Your task to perform on an android device: turn on bluetooth scan Image 0: 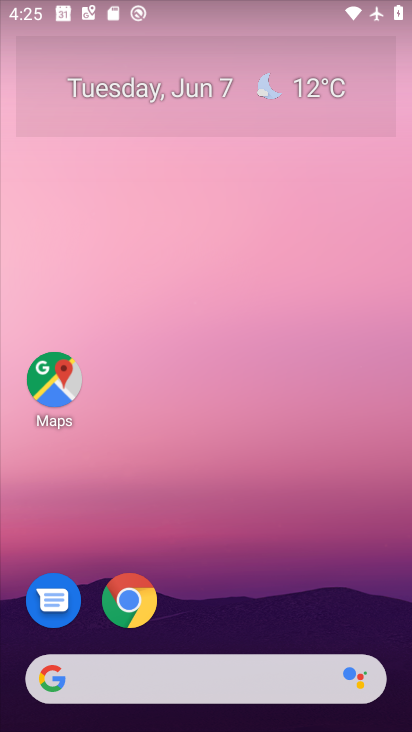
Step 0: drag from (239, 599) to (190, 156)
Your task to perform on an android device: turn on bluetooth scan Image 1: 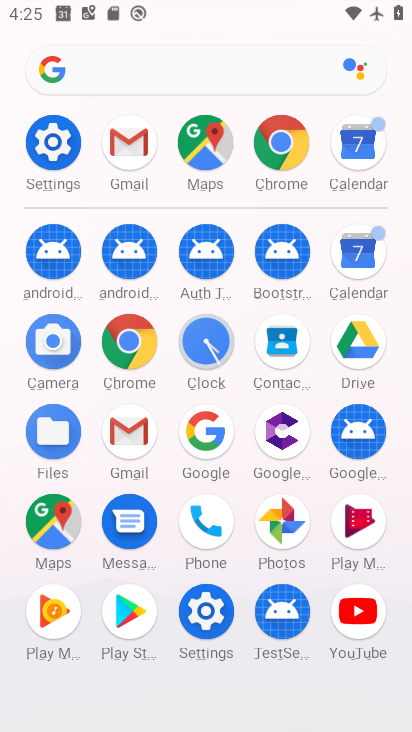
Step 1: click (42, 134)
Your task to perform on an android device: turn on bluetooth scan Image 2: 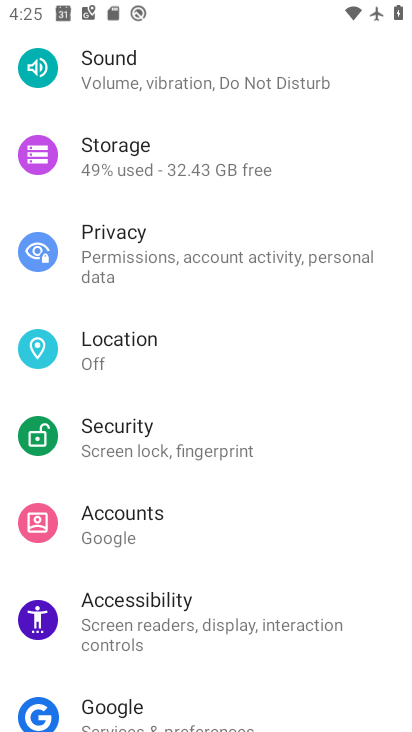
Step 2: drag from (228, 663) to (170, 40)
Your task to perform on an android device: turn on bluetooth scan Image 3: 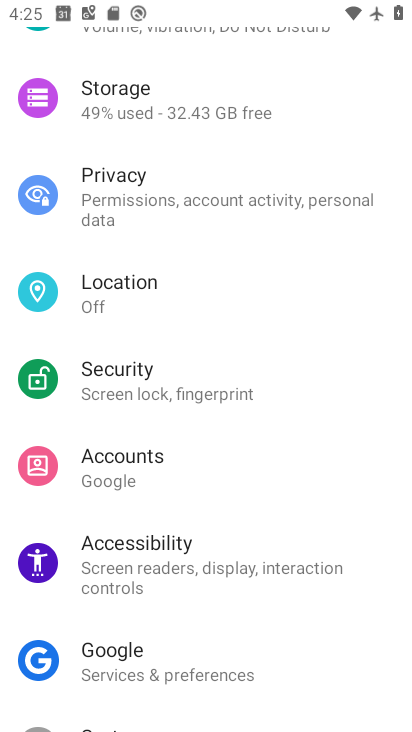
Step 3: click (259, 335)
Your task to perform on an android device: turn on bluetooth scan Image 4: 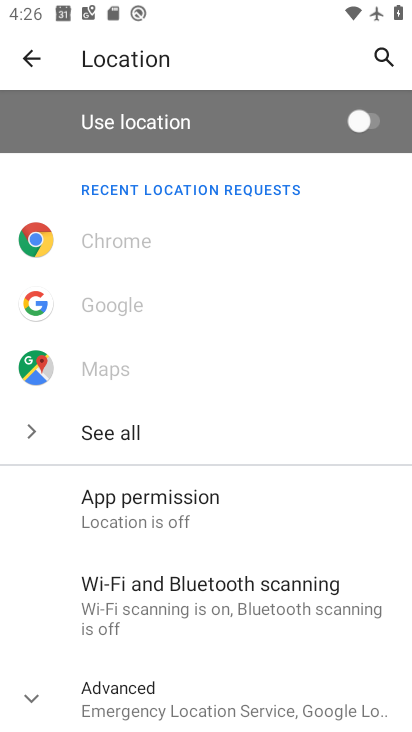
Step 4: click (204, 594)
Your task to perform on an android device: turn on bluetooth scan Image 5: 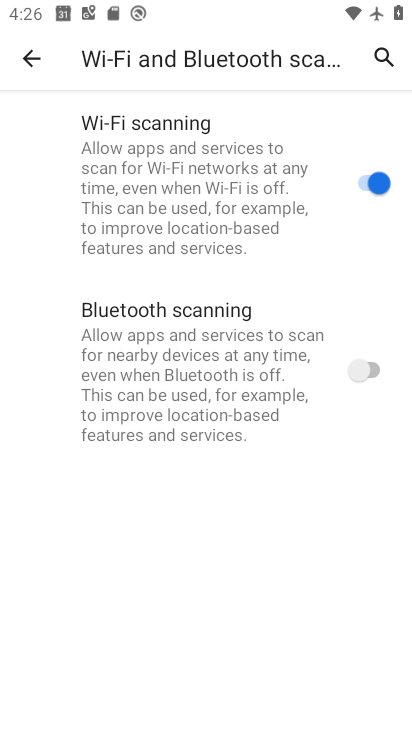
Step 5: click (378, 377)
Your task to perform on an android device: turn on bluetooth scan Image 6: 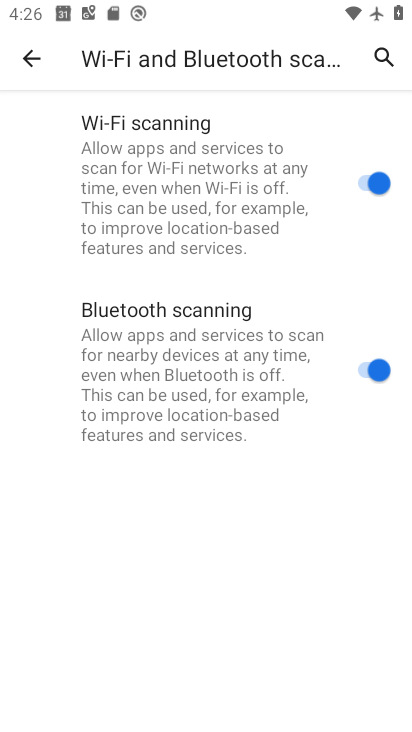
Step 6: task complete